Your task to perform on an android device: change the clock style Image 0: 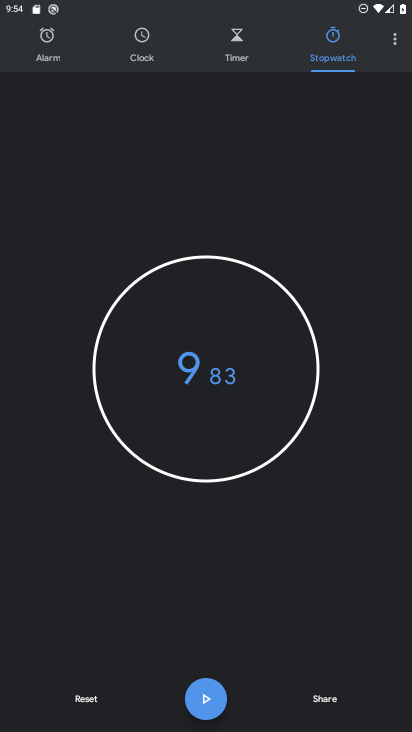
Step 0: click (392, 39)
Your task to perform on an android device: change the clock style Image 1: 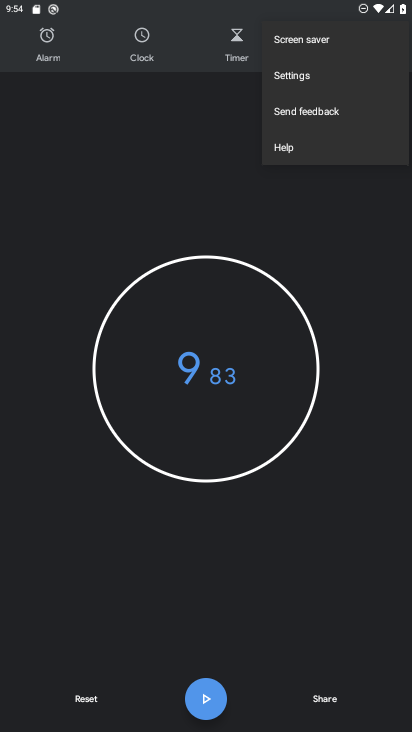
Step 1: click (310, 70)
Your task to perform on an android device: change the clock style Image 2: 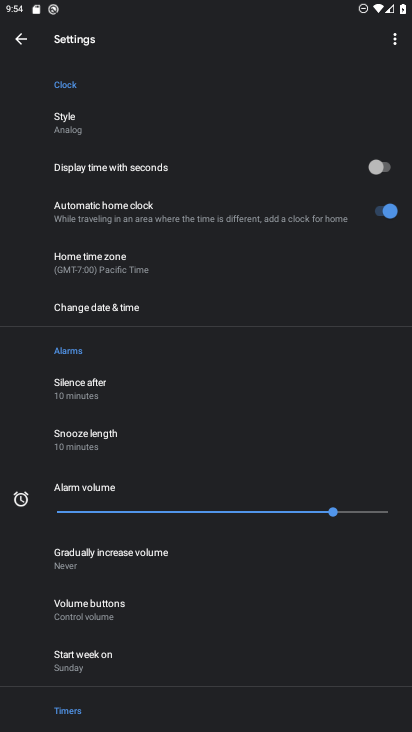
Step 2: click (91, 124)
Your task to perform on an android device: change the clock style Image 3: 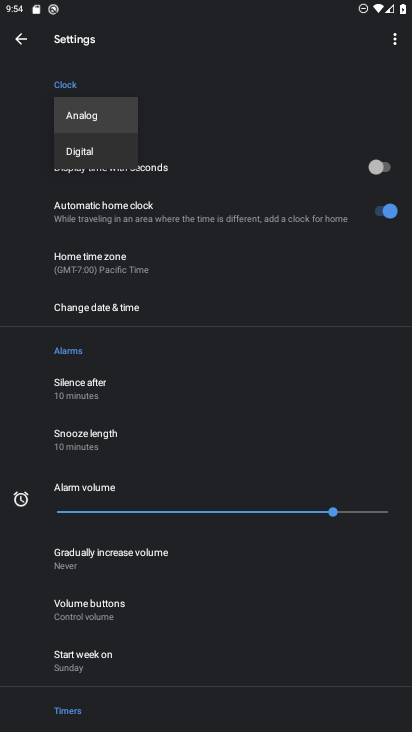
Step 3: click (88, 143)
Your task to perform on an android device: change the clock style Image 4: 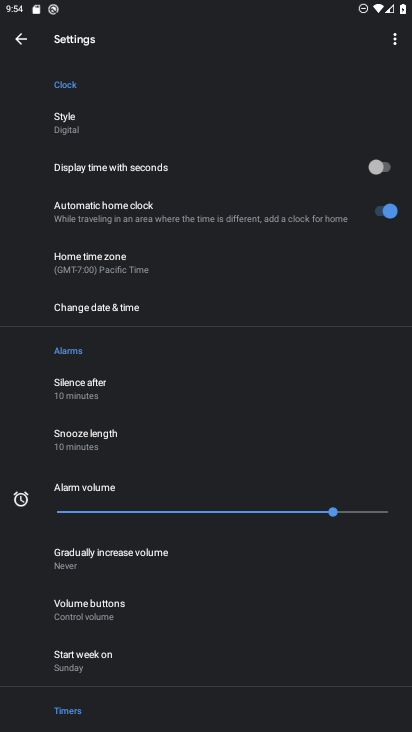
Step 4: task complete